Your task to perform on an android device: Open Amazon Image 0: 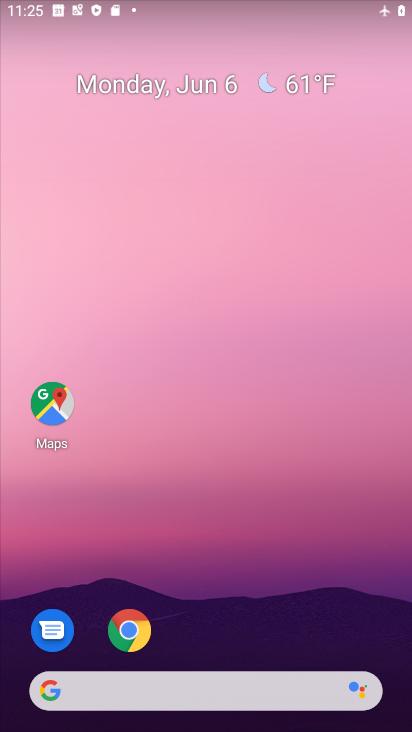
Step 0: drag from (329, 607) to (320, 178)
Your task to perform on an android device: Open Amazon Image 1: 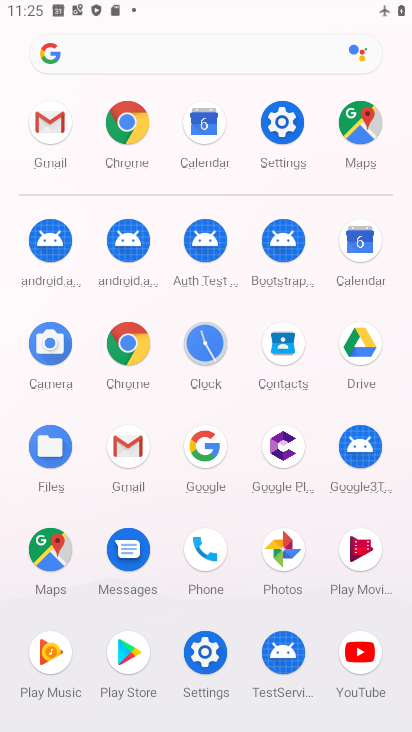
Step 1: click (142, 348)
Your task to perform on an android device: Open Amazon Image 2: 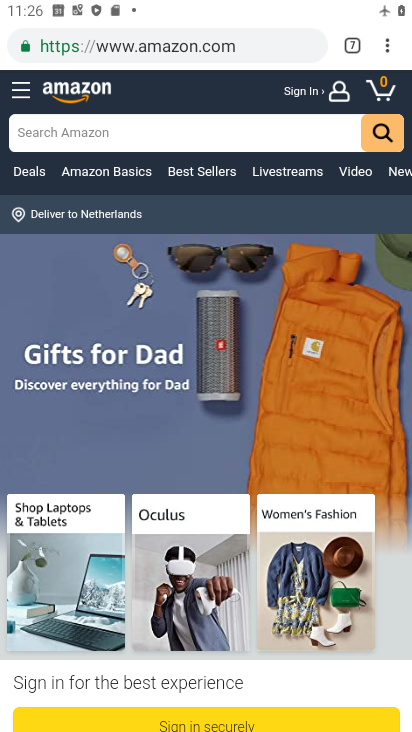
Step 2: task complete